Your task to perform on an android device: open wifi settings Image 0: 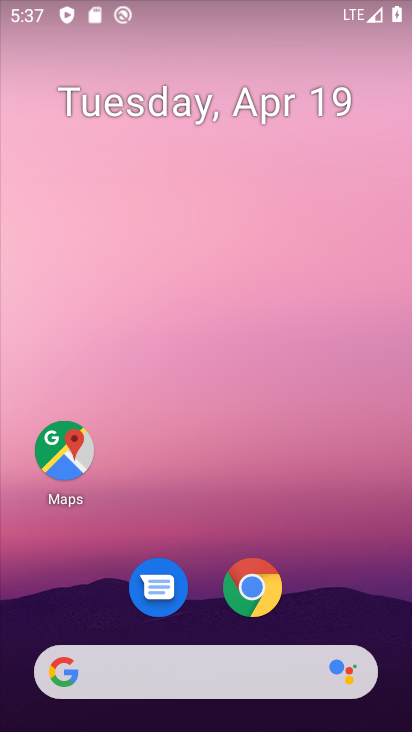
Step 0: drag from (178, 11) to (229, 428)
Your task to perform on an android device: open wifi settings Image 1: 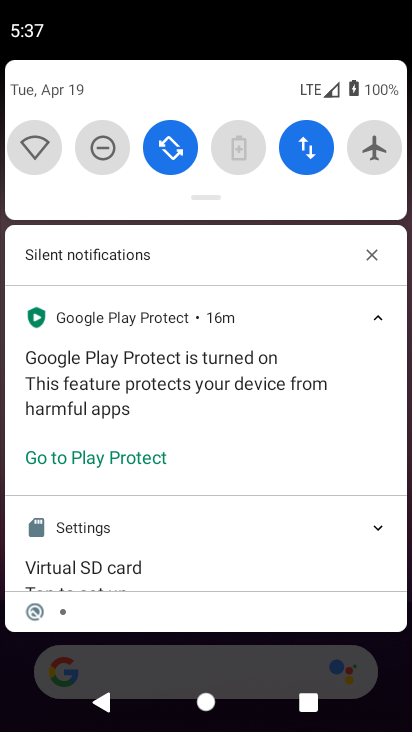
Step 1: click (45, 157)
Your task to perform on an android device: open wifi settings Image 2: 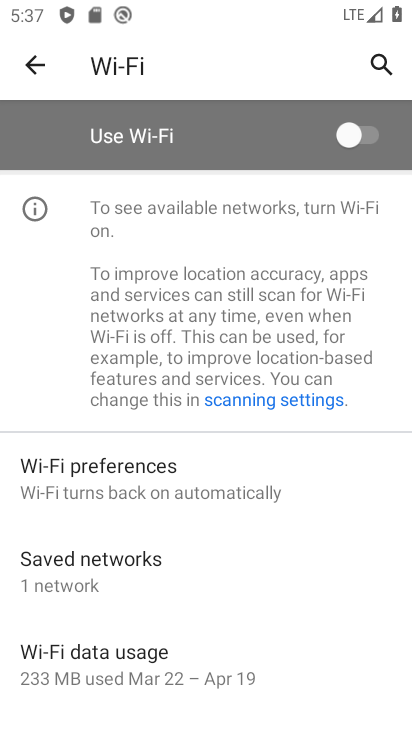
Step 2: task complete